Your task to perform on an android device: Show me productivity apps on the Play Store Image 0: 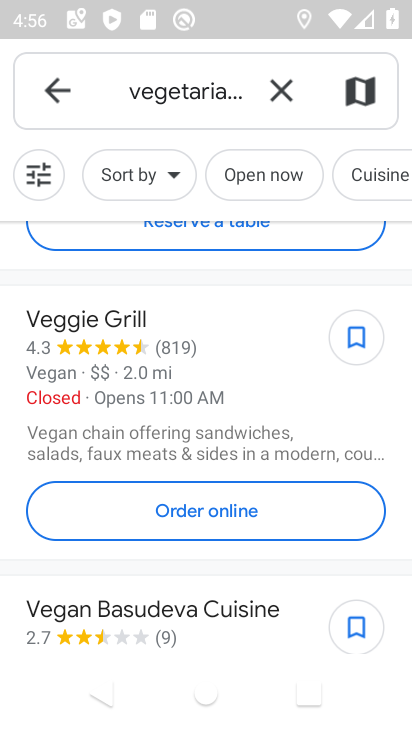
Step 0: press back button
Your task to perform on an android device: Show me productivity apps on the Play Store Image 1: 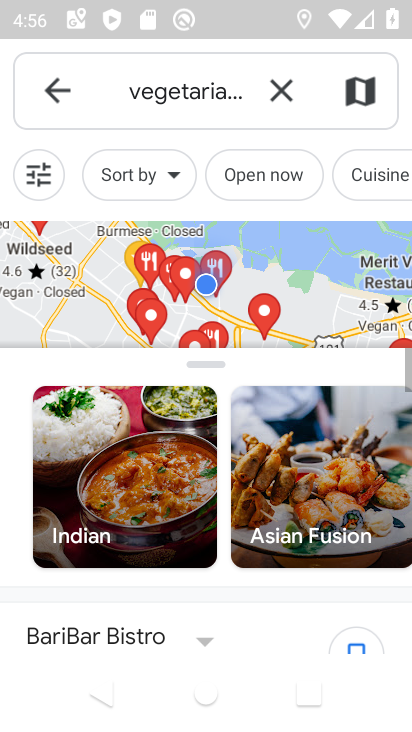
Step 1: press back button
Your task to perform on an android device: Show me productivity apps on the Play Store Image 2: 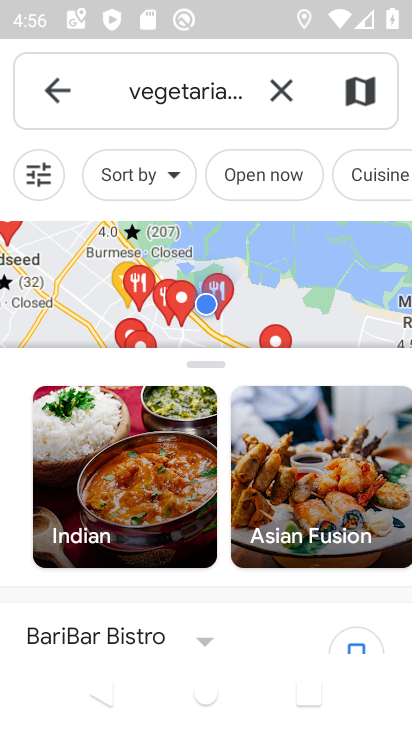
Step 2: press home button
Your task to perform on an android device: Show me productivity apps on the Play Store Image 3: 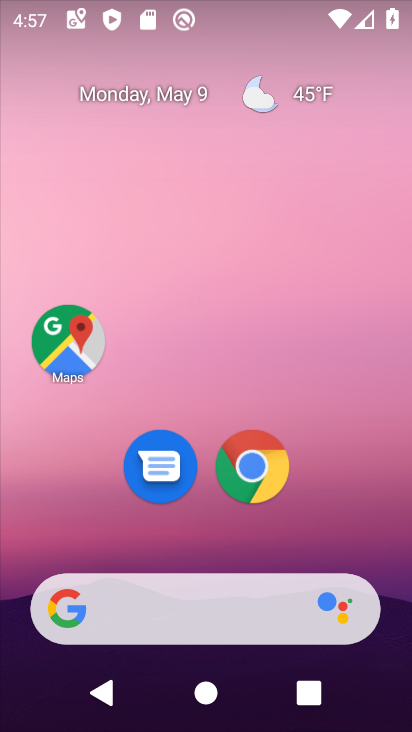
Step 3: drag from (351, 501) to (260, 21)
Your task to perform on an android device: Show me productivity apps on the Play Store Image 4: 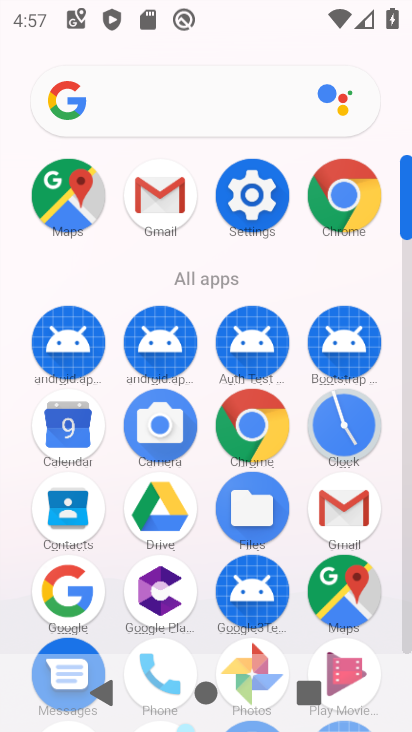
Step 4: drag from (13, 574) to (0, 240)
Your task to perform on an android device: Show me productivity apps on the Play Store Image 5: 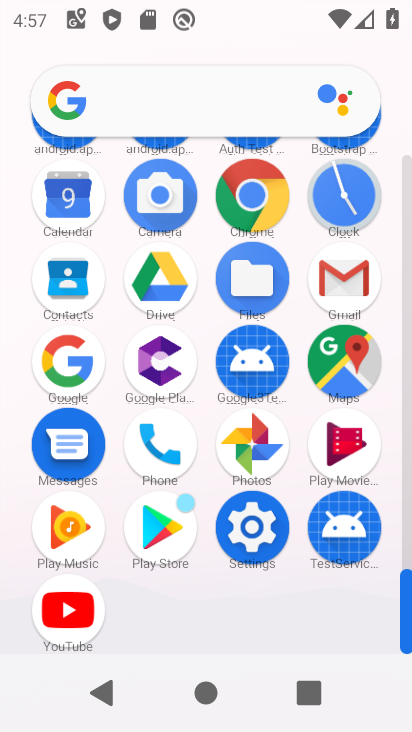
Step 5: drag from (17, 221) to (6, 523)
Your task to perform on an android device: Show me productivity apps on the Play Store Image 6: 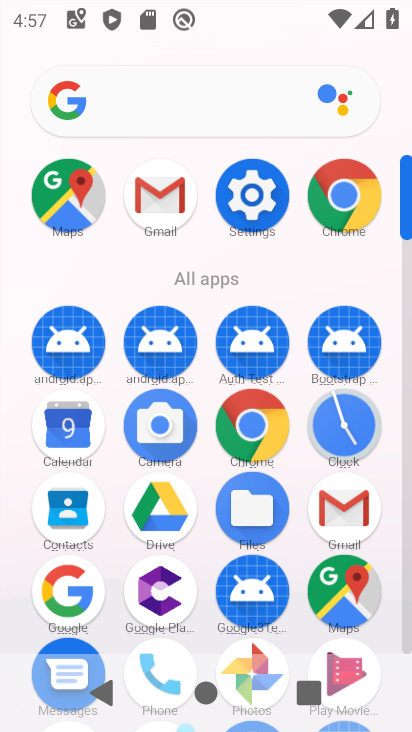
Step 6: drag from (19, 566) to (21, 237)
Your task to perform on an android device: Show me productivity apps on the Play Store Image 7: 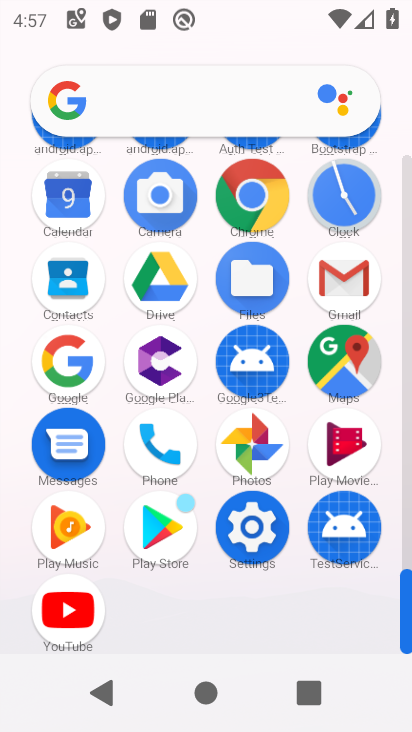
Step 7: click (161, 525)
Your task to perform on an android device: Show me productivity apps on the Play Store Image 8: 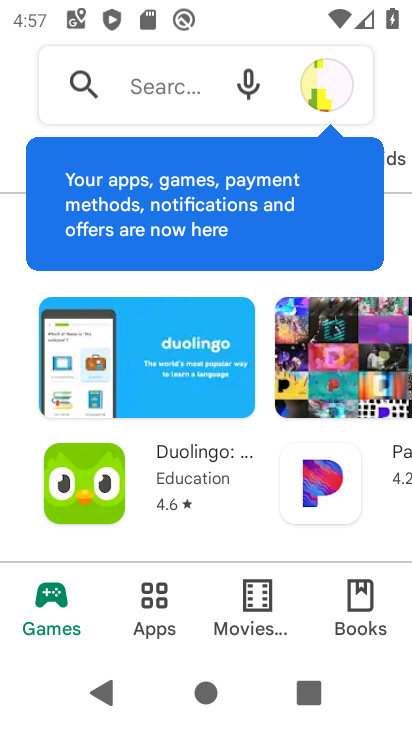
Step 8: click (173, 620)
Your task to perform on an android device: Show me productivity apps on the Play Store Image 9: 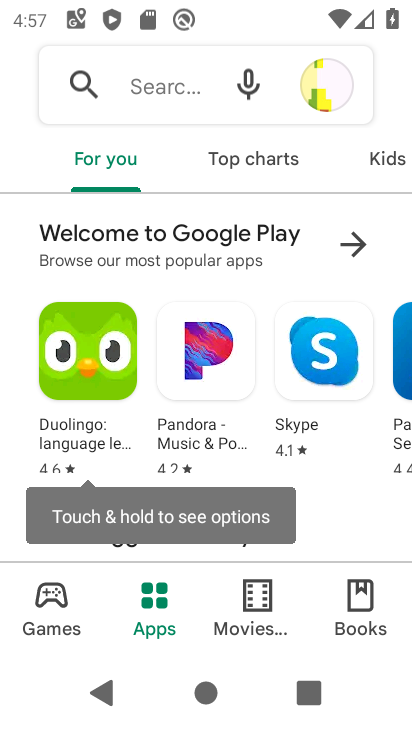
Step 9: drag from (318, 166) to (30, 189)
Your task to perform on an android device: Show me productivity apps on the Play Store Image 10: 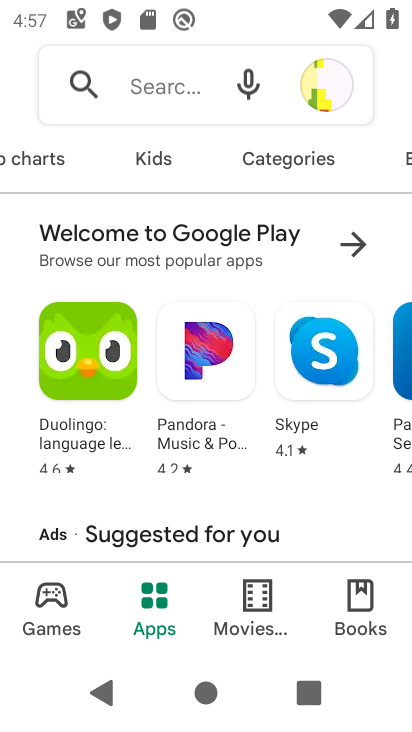
Step 10: click (293, 154)
Your task to perform on an android device: Show me productivity apps on the Play Store Image 11: 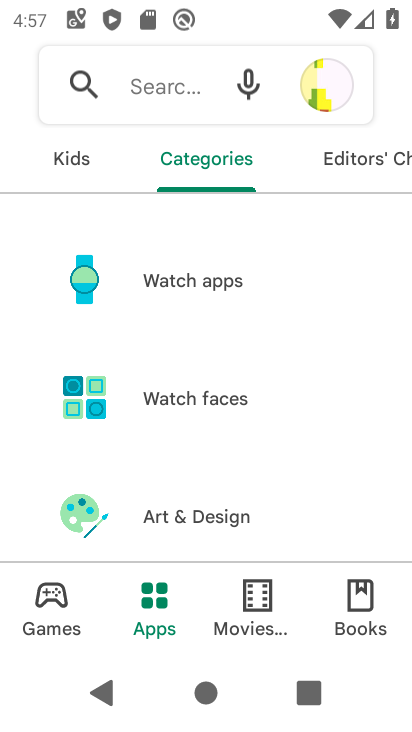
Step 11: drag from (275, 499) to (301, 130)
Your task to perform on an android device: Show me productivity apps on the Play Store Image 12: 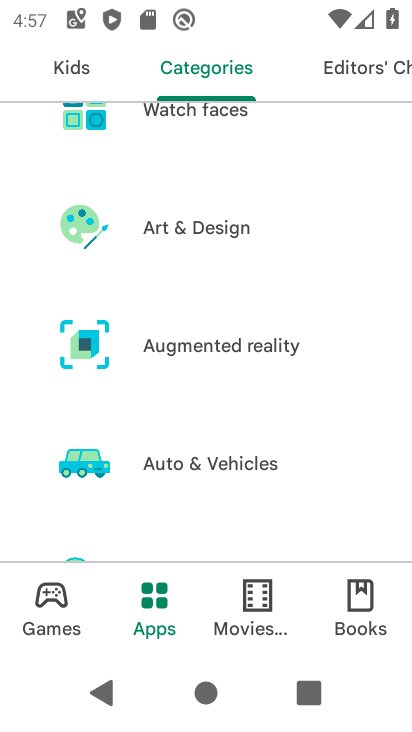
Step 12: drag from (281, 459) to (288, 162)
Your task to perform on an android device: Show me productivity apps on the Play Store Image 13: 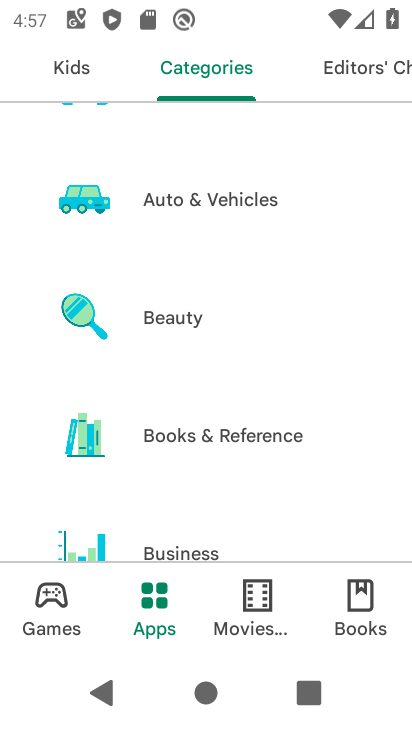
Step 13: drag from (268, 512) to (281, 191)
Your task to perform on an android device: Show me productivity apps on the Play Store Image 14: 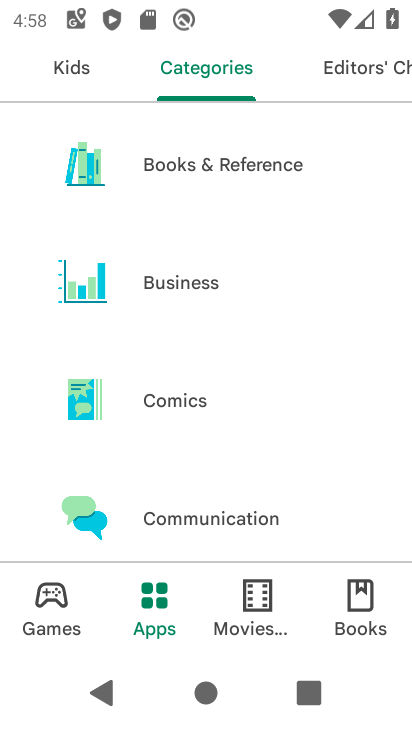
Step 14: drag from (266, 495) to (286, 189)
Your task to perform on an android device: Show me productivity apps on the Play Store Image 15: 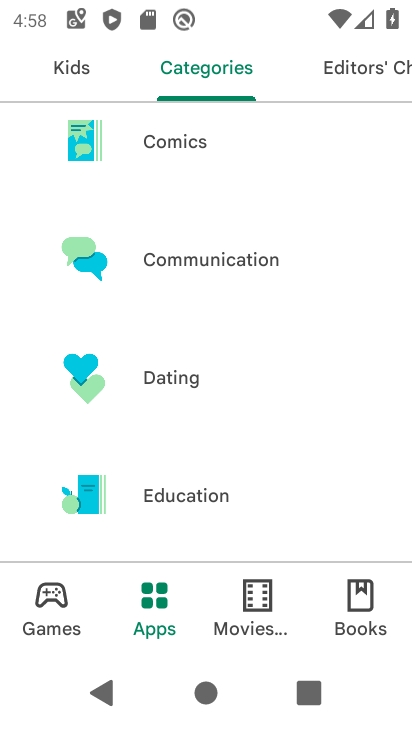
Step 15: drag from (267, 528) to (266, 150)
Your task to perform on an android device: Show me productivity apps on the Play Store Image 16: 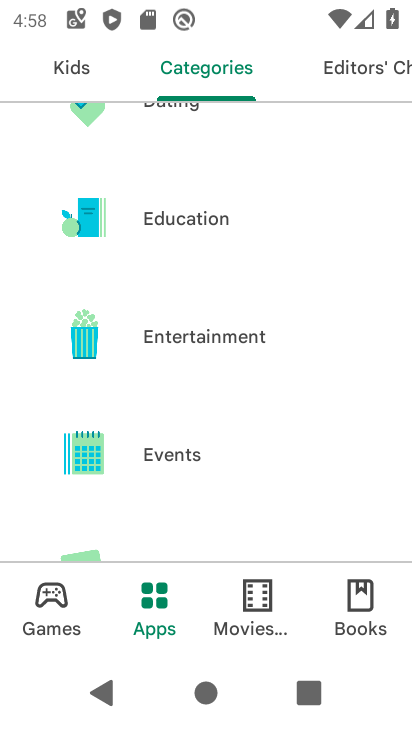
Step 16: drag from (233, 444) to (245, 170)
Your task to perform on an android device: Show me productivity apps on the Play Store Image 17: 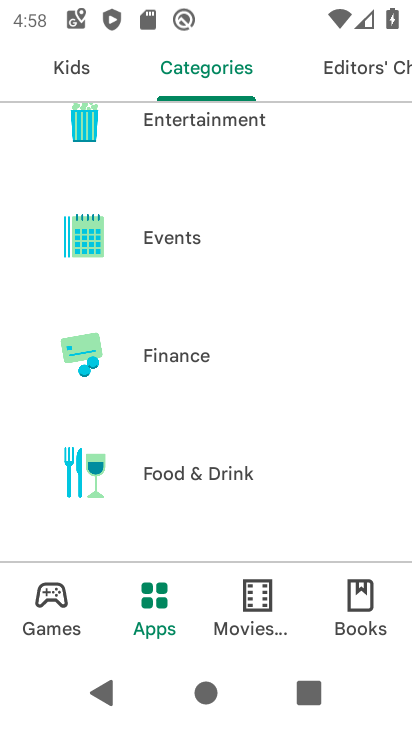
Step 17: drag from (248, 517) to (280, 137)
Your task to perform on an android device: Show me productivity apps on the Play Store Image 18: 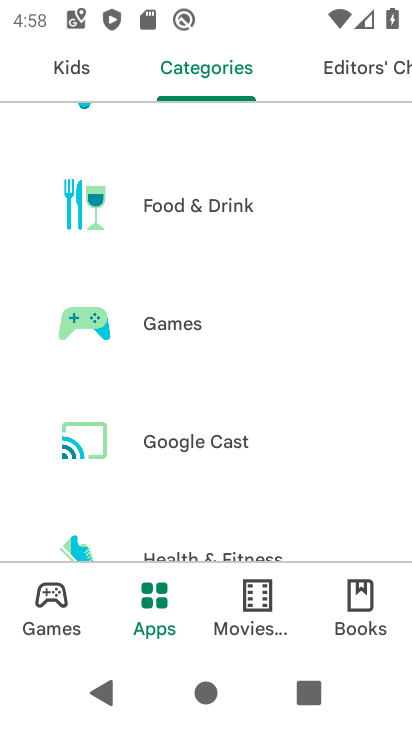
Step 18: drag from (265, 436) to (269, 178)
Your task to perform on an android device: Show me productivity apps on the Play Store Image 19: 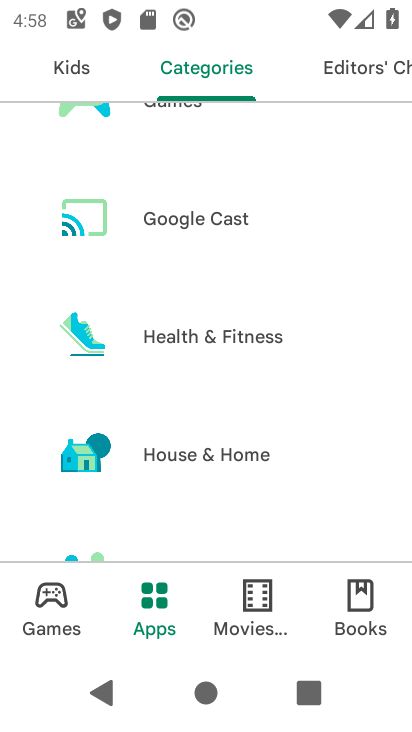
Step 19: drag from (246, 516) to (275, 148)
Your task to perform on an android device: Show me productivity apps on the Play Store Image 20: 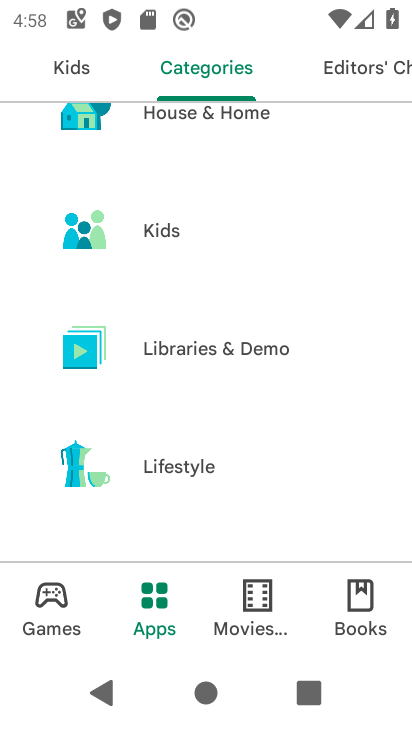
Step 20: drag from (279, 469) to (281, 172)
Your task to perform on an android device: Show me productivity apps on the Play Store Image 21: 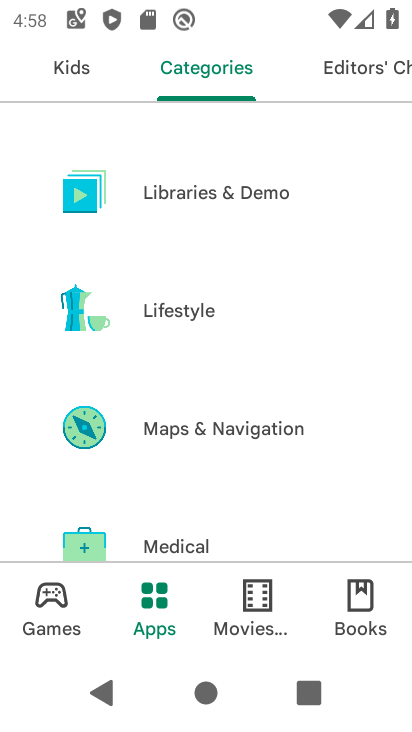
Step 21: drag from (262, 504) to (262, 201)
Your task to perform on an android device: Show me productivity apps on the Play Store Image 22: 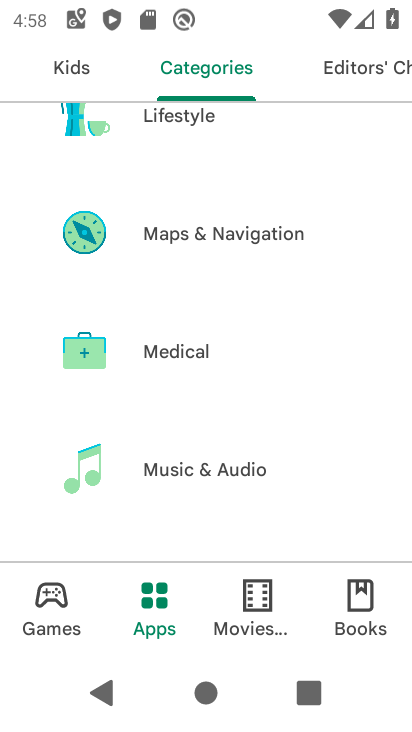
Step 22: drag from (239, 522) to (239, 202)
Your task to perform on an android device: Show me productivity apps on the Play Store Image 23: 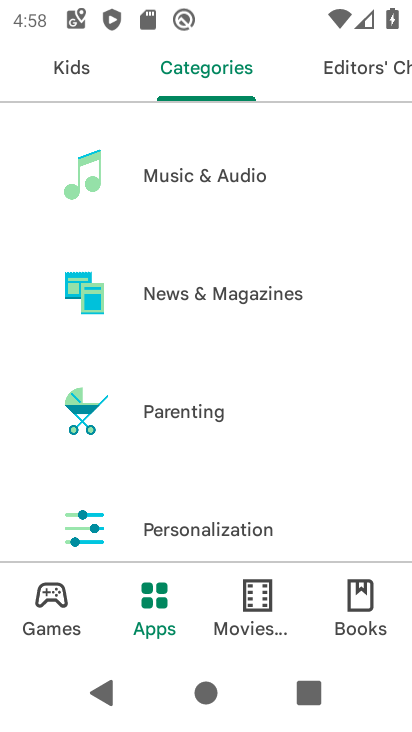
Step 23: drag from (229, 526) to (275, 187)
Your task to perform on an android device: Show me productivity apps on the Play Store Image 24: 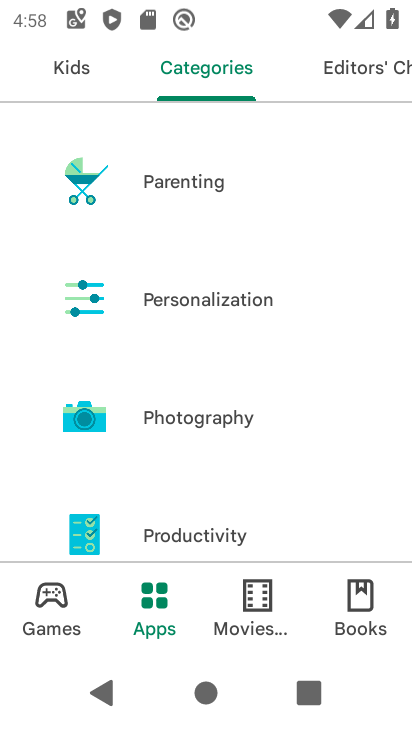
Step 24: drag from (231, 500) to (286, 223)
Your task to perform on an android device: Show me productivity apps on the Play Store Image 25: 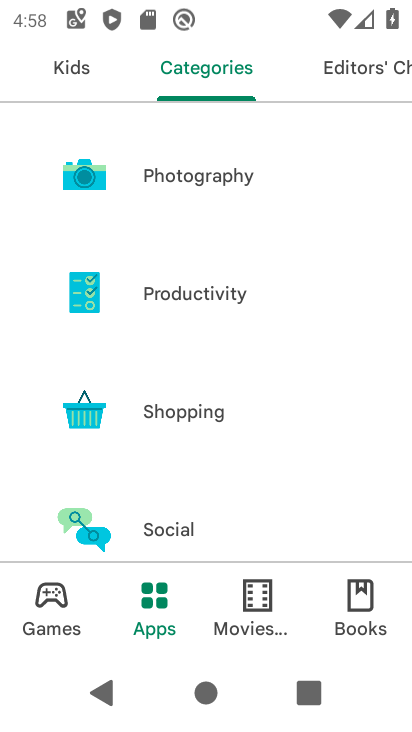
Step 25: click (209, 284)
Your task to perform on an android device: Show me productivity apps on the Play Store Image 26: 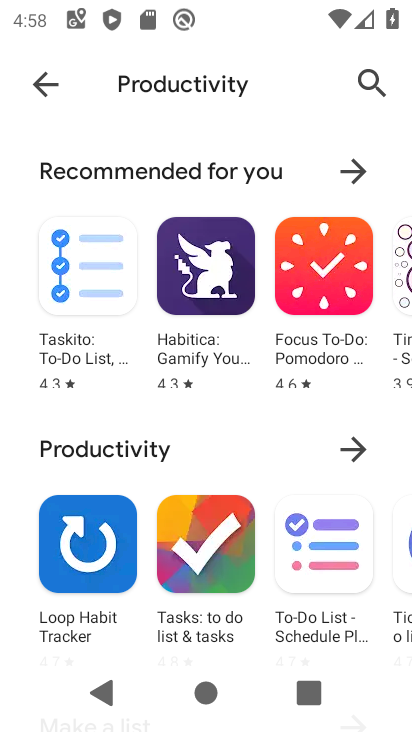
Step 26: task complete